Your task to perform on an android device: toggle pop-ups in chrome Image 0: 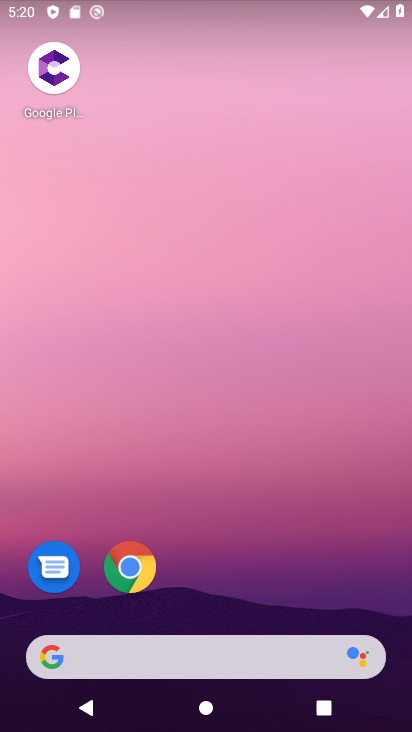
Step 0: click (130, 561)
Your task to perform on an android device: toggle pop-ups in chrome Image 1: 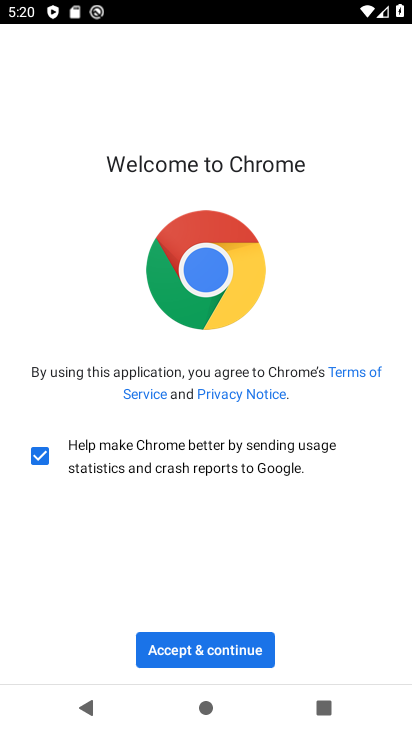
Step 1: click (226, 653)
Your task to perform on an android device: toggle pop-ups in chrome Image 2: 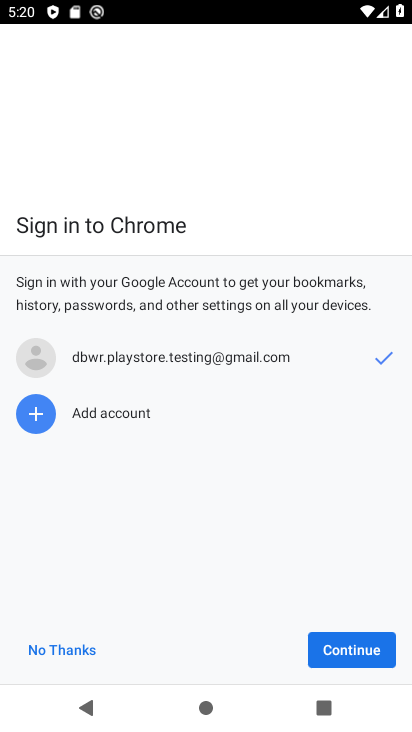
Step 2: click (333, 658)
Your task to perform on an android device: toggle pop-ups in chrome Image 3: 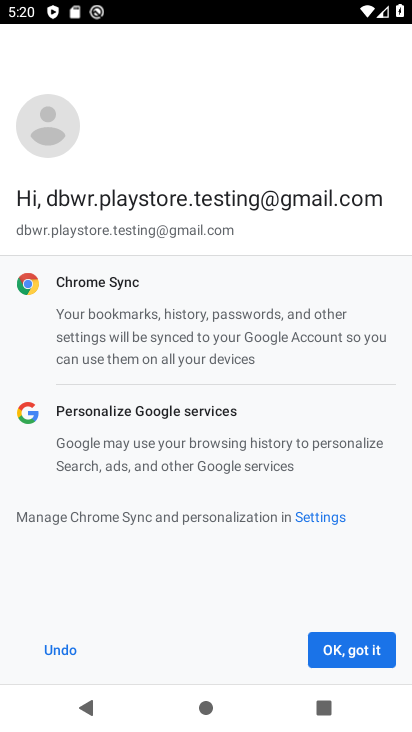
Step 3: click (388, 644)
Your task to perform on an android device: toggle pop-ups in chrome Image 4: 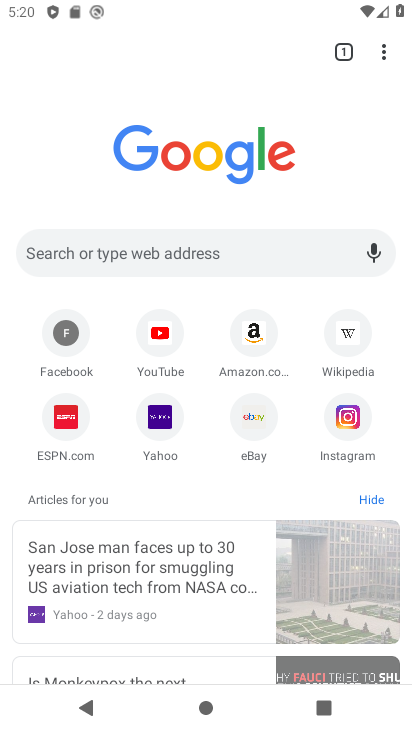
Step 4: drag from (386, 53) to (338, 494)
Your task to perform on an android device: toggle pop-ups in chrome Image 5: 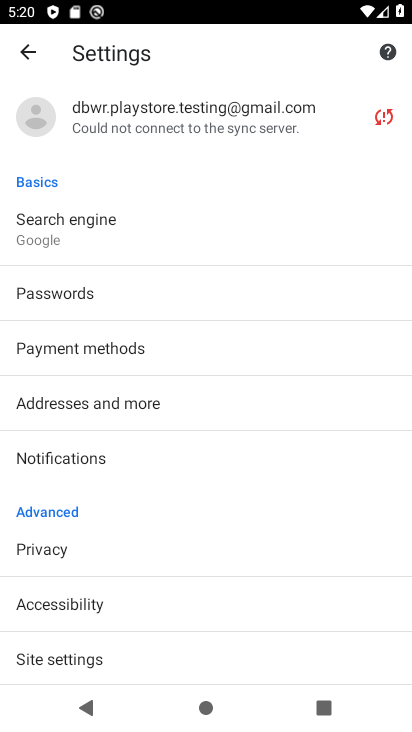
Step 5: drag from (251, 626) to (316, 339)
Your task to perform on an android device: toggle pop-ups in chrome Image 6: 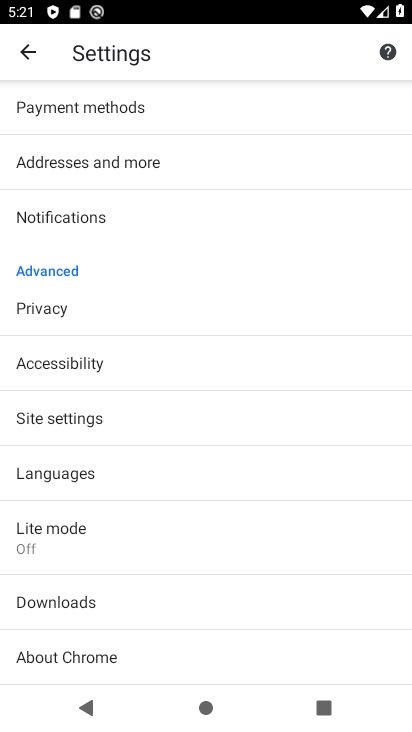
Step 6: click (153, 422)
Your task to perform on an android device: toggle pop-ups in chrome Image 7: 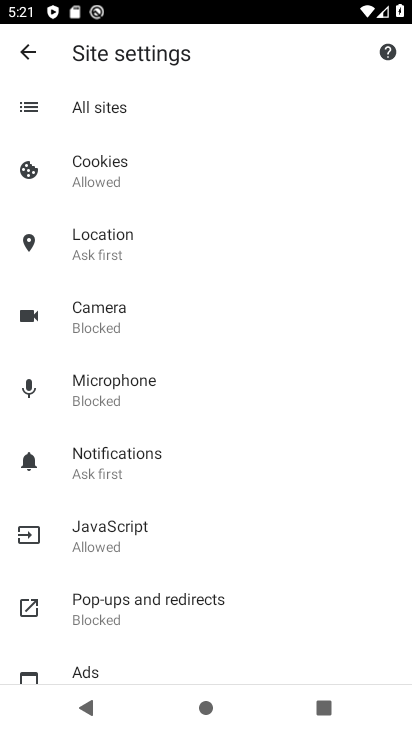
Step 7: drag from (150, 587) to (199, 371)
Your task to perform on an android device: toggle pop-ups in chrome Image 8: 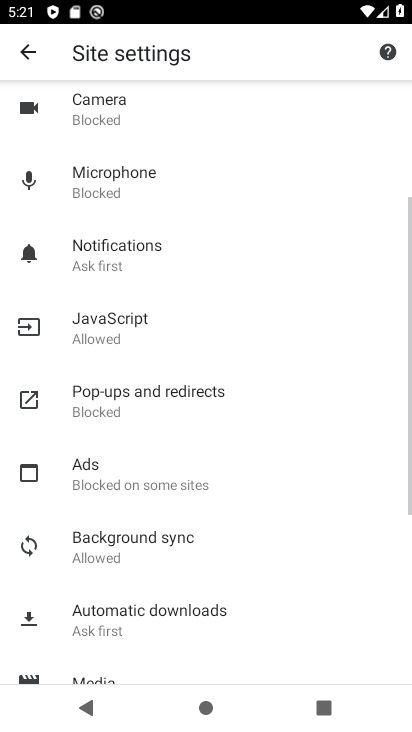
Step 8: click (195, 391)
Your task to perform on an android device: toggle pop-ups in chrome Image 9: 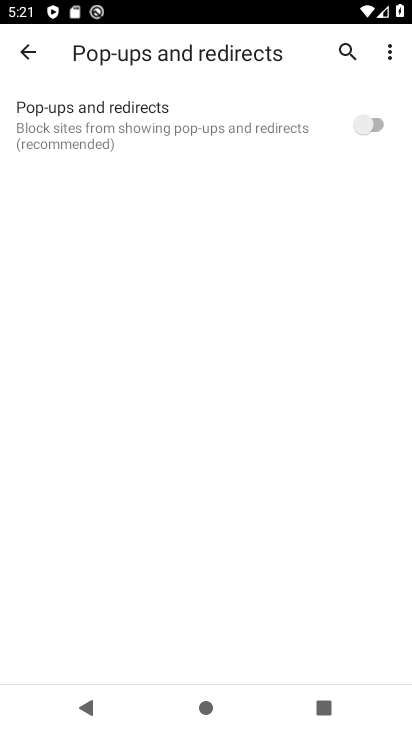
Step 9: click (390, 122)
Your task to perform on an android device: toggle pop-ups in chrome Image 10: 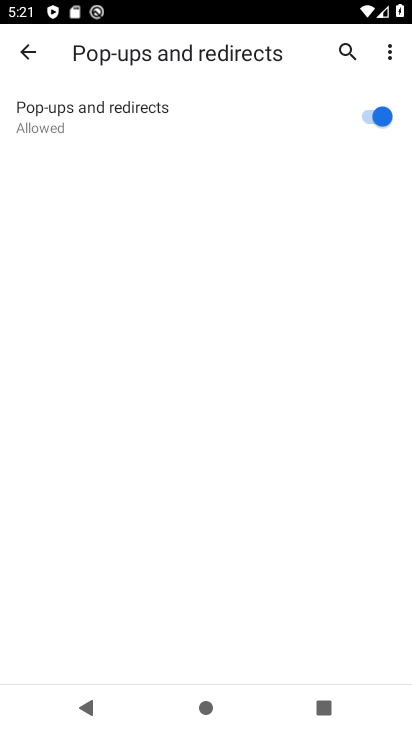
Step 10: task complete